Your task to perform on an android device: turn off smart reply in the gmail app Image 0: 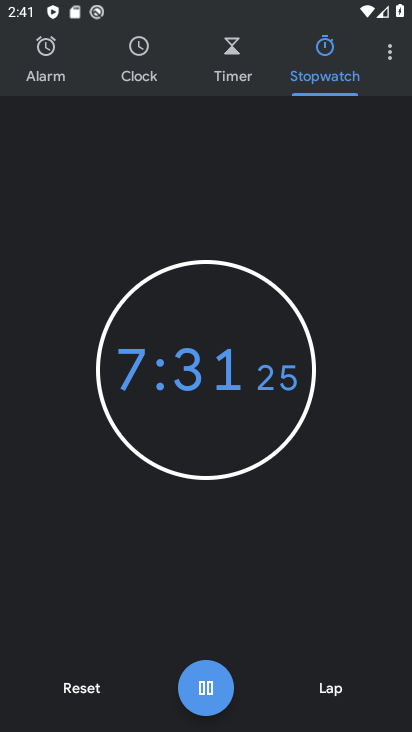
Step 0: press home button
Your task to perform on an android device: turn off smart reply in the gmail app Image 1: 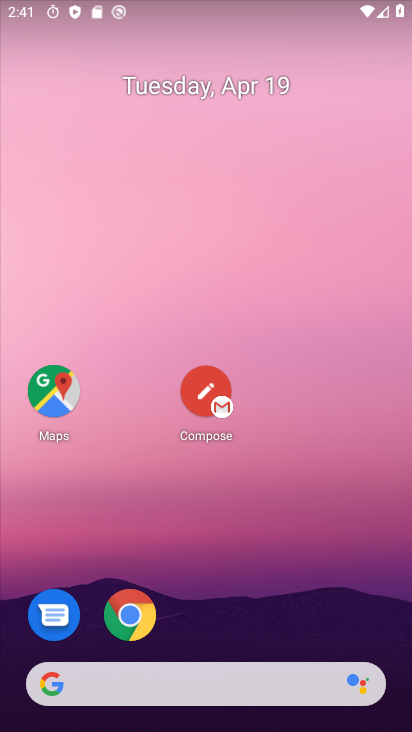
Step 1: drag from (251, 538) to (288, 26)
Your task to perform on an android device: turn off smart reply in the gmail app Image 2: 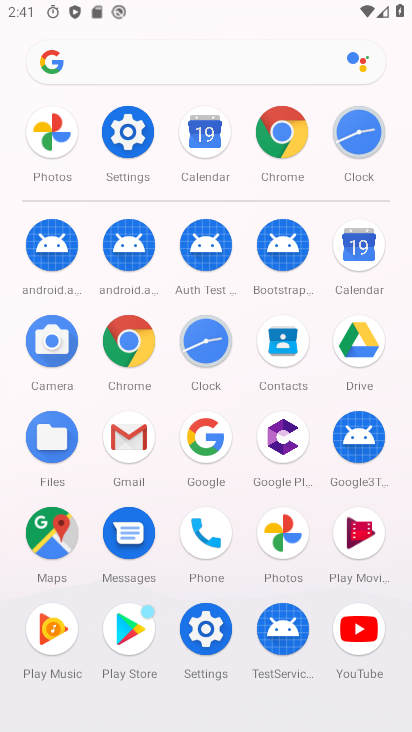
Step 2: click (133, 441)
Your task to perform on an android device: turn off smart reply in the gmail app Image 3: 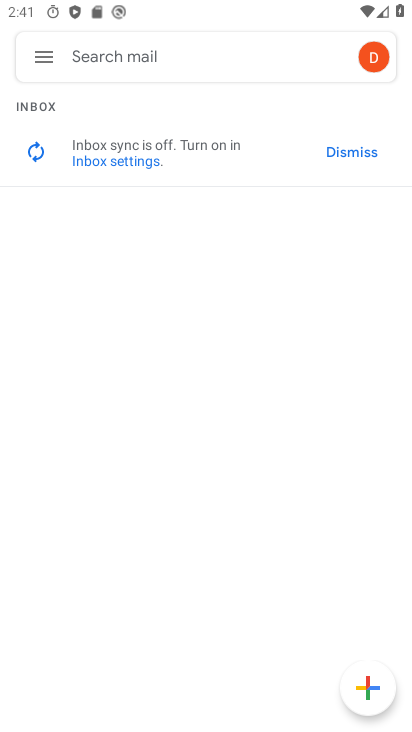
Step 3: click (37, 53)
Your task to perform on an android device: turn off smart reply in the gmail app Image 4: 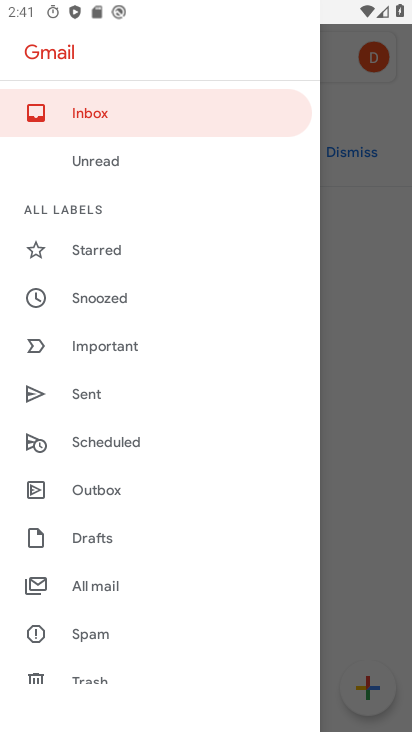
Step 4: drag from (169, 674) to (223, 175)
Your task to perform on an android device: turn off smart reply in the gmail app Image 5: 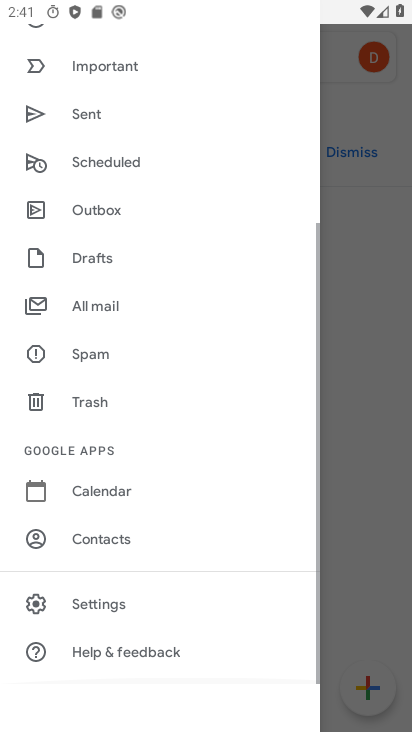
Step 5: click (135, 605)
Your task to perform on an android device: turn off smart reply in the gmail app Image 6: 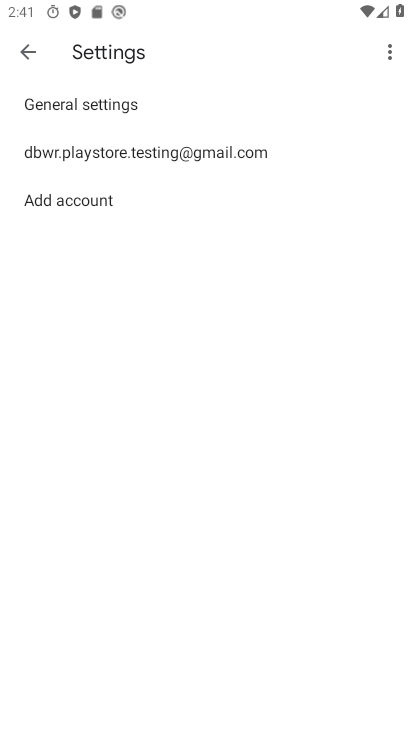
Step 6: click (71, 155)
Your task to perform on an android device: turn off smart reply in the gmail app Image 7: 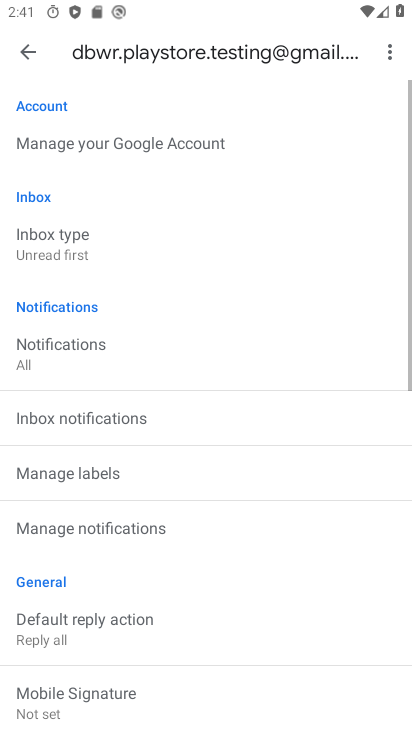
Step 7: drag from (181, 637) to (157, 87)
Your task to perform on an android device: turn off smart reply in the gmail app Image 8: 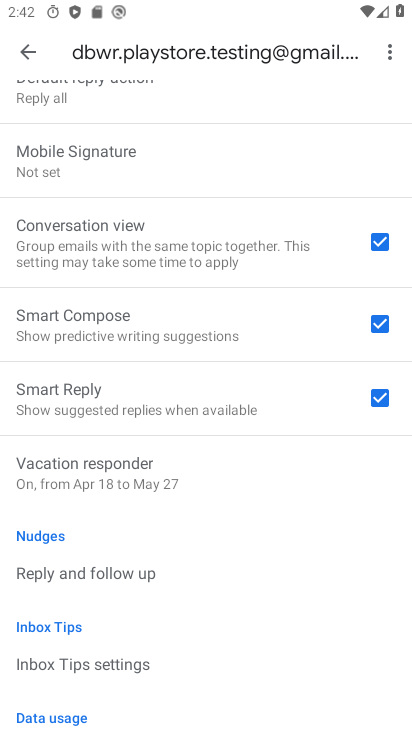
Step 8: click (377, 396)
Your task to perform on an android device: turn off smart reply in the gmail app Image 9: 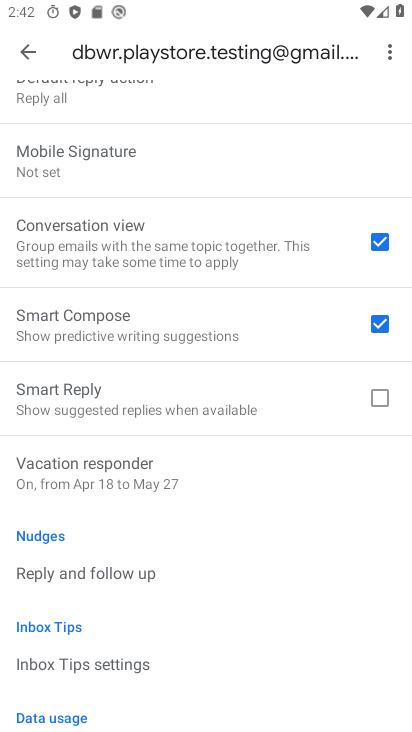
Step 9: task complete